Your task to perform on an android device: check google app version Image 0: 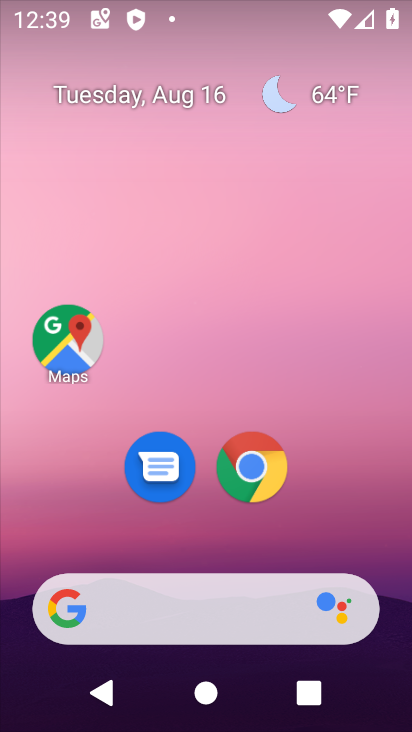
Step 0: press home button
Your task to perform on an android device: check google app version Image 1: 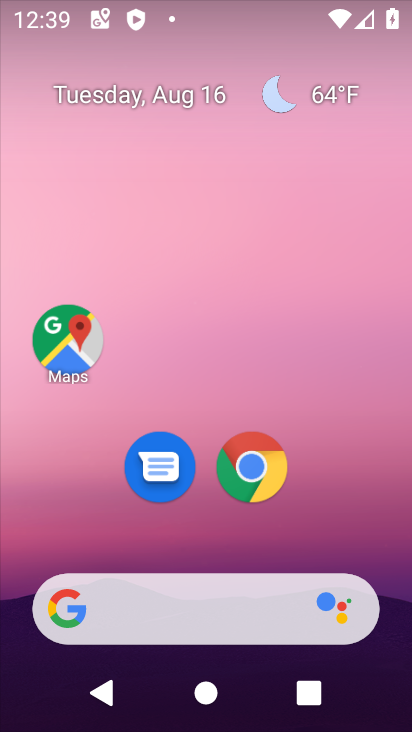
Step 1: drag from (364, 536) to (386, 97)
Your task to perform on an android device: check google app version Image 2: 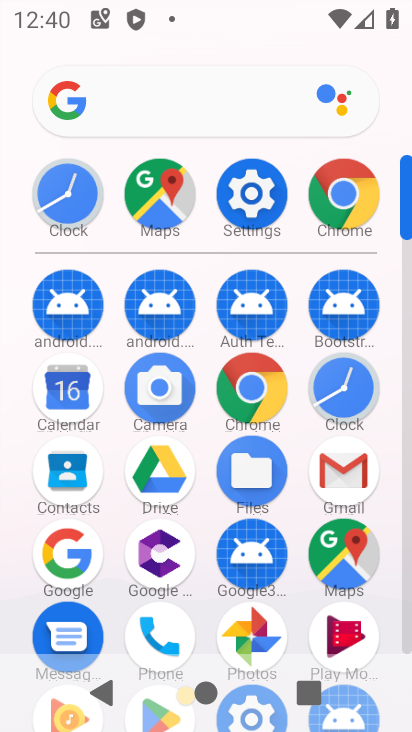
Step 2: click (64, 563)
Your task to perform on an android device: check google app version Image 3: 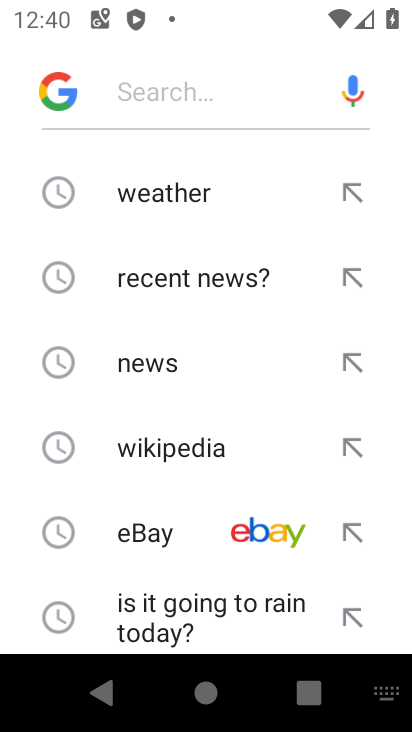
Step 3: press back button
Your task to perform on an android device: check google app version Image 4: 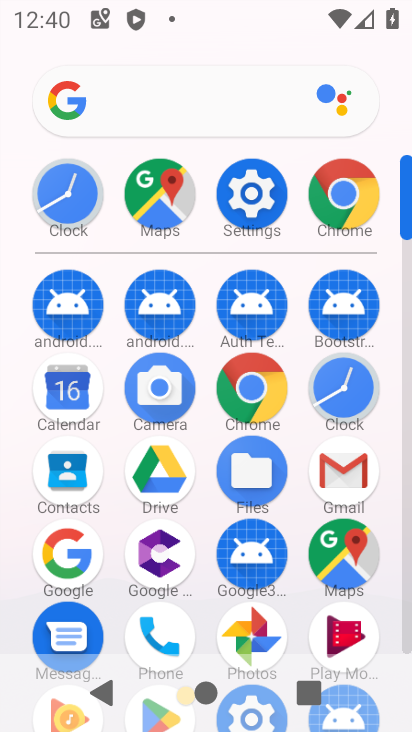
Step 4: click (66, 559)
Your task to perform on an android device: check google app version Image 5: 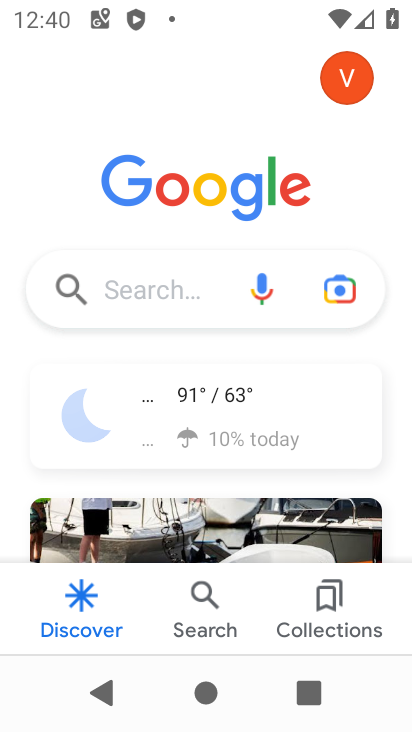
Step 5: click (354, 78)
Your task to perform on an android device: check google app version Image 6: 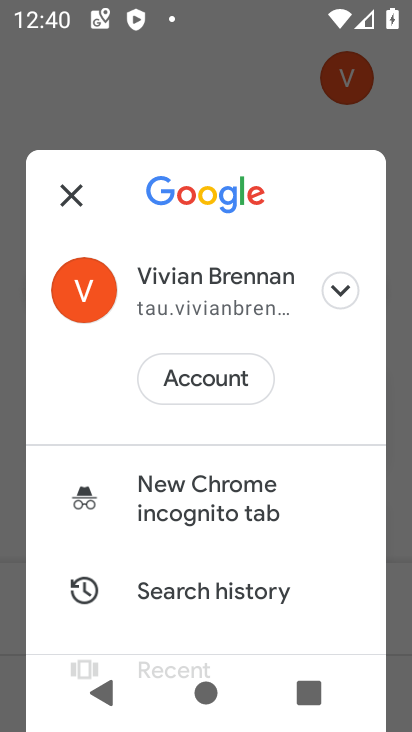
Step 6: drag from (321, 535) to (289, 196)
Your task to perform on an android device: check google app version Image 7: 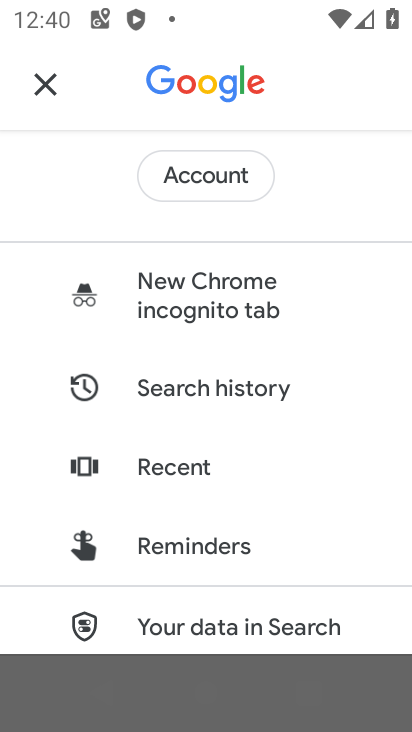
Step 7: drag from (286, 485) to (290, 201)
Your task to perform on an android device: check google app version Image 8: 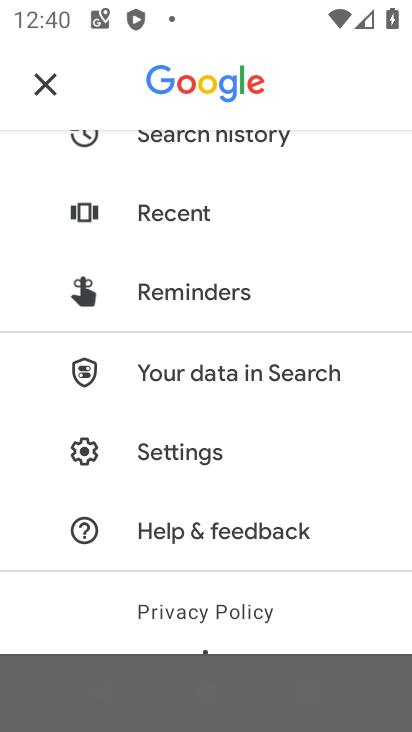
Step 8: click (250, 458)
Your task to perform on an android device: check google app version Image 9: 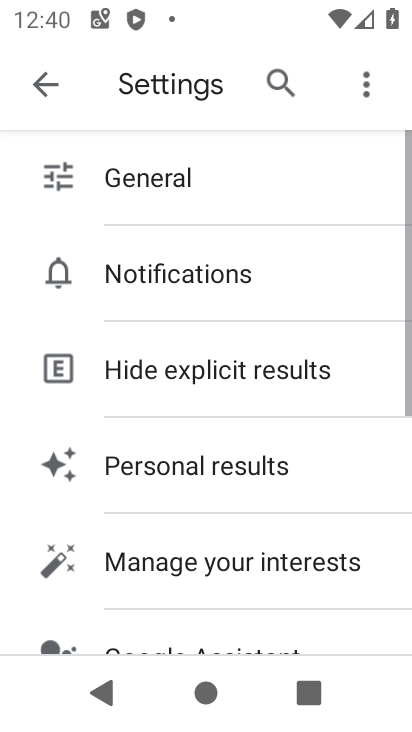
Step 9: drag from (257, 500) to (274, 287)
Your task to perform on an android device: check google app version Image 10: 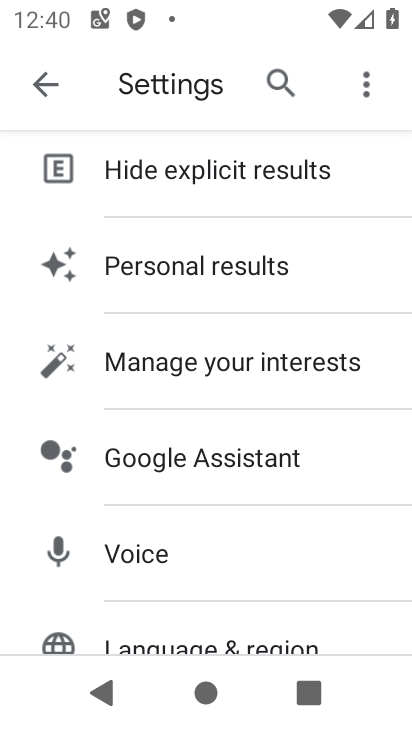
Step 10: drag from (289, 562) to (301, 317)
Your task to perform on an android device: check google app version Image 11: 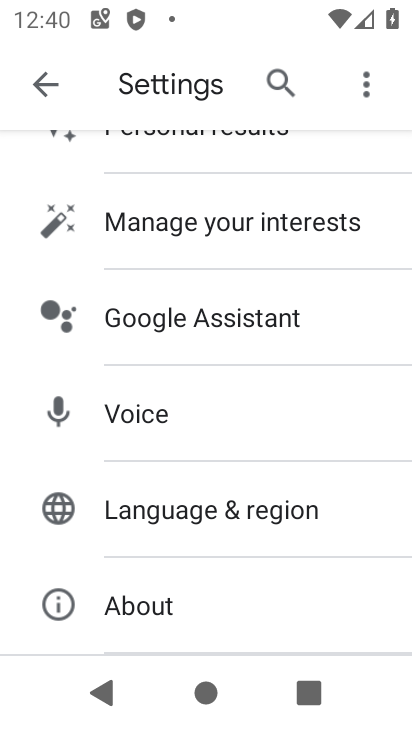
Step 11: click (270, 596)
Your task to perform on an android device: check google app version Image 12: 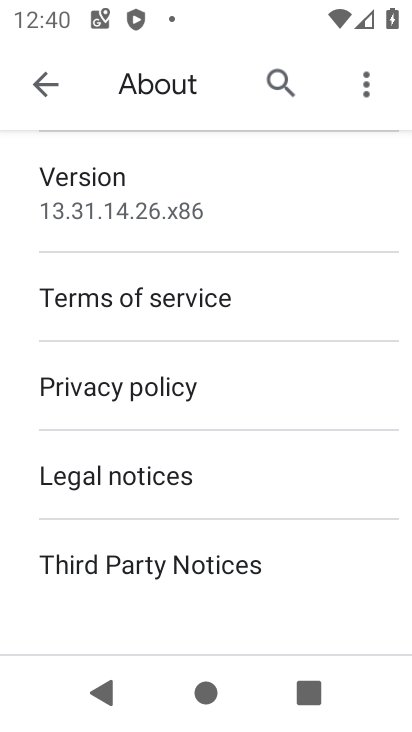
Step 12: task complete